Your task to perform on an android device: toggle priority inbox in the gmail app Image 0: 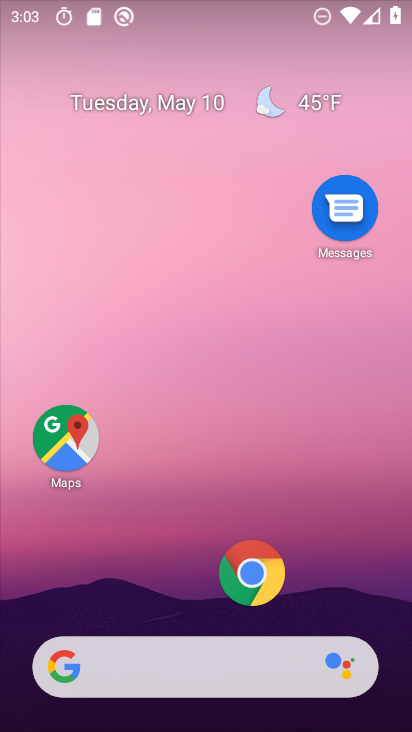
Step 0: drag from (223, 620) to (247, 273)
Your task to perform on an android device: toggle priority inbox in the gmail app Image 1: 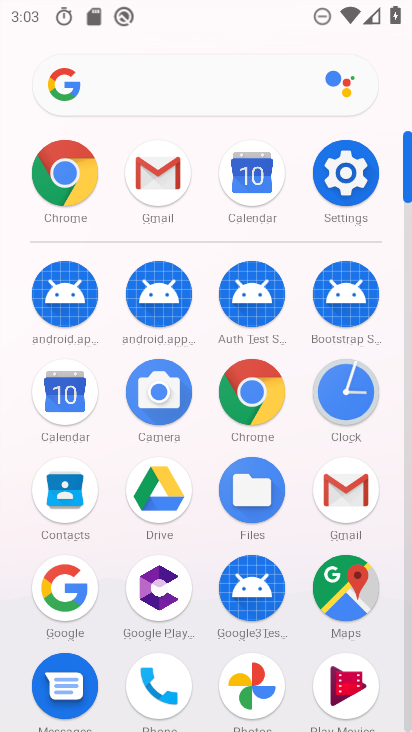
Step 1: drag from (197, 643) to (212, 314)
Your task to perform on an android device: toggle priority inbox in the gmail app Image 2: 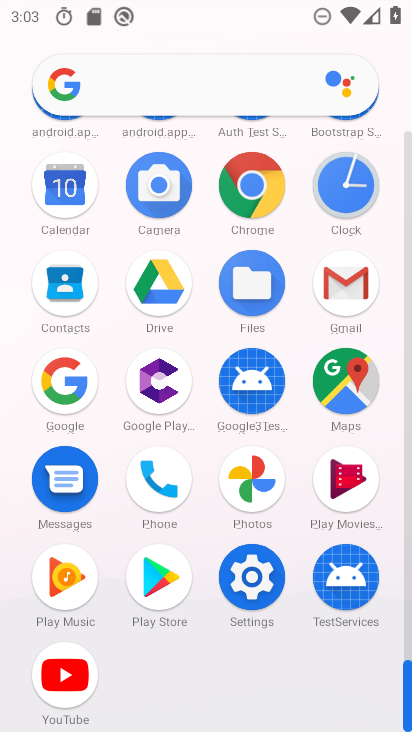
Step 2: click (356, 269)
Your task to perform on an android device: toggle priority inbox in the gmail app Image 3: 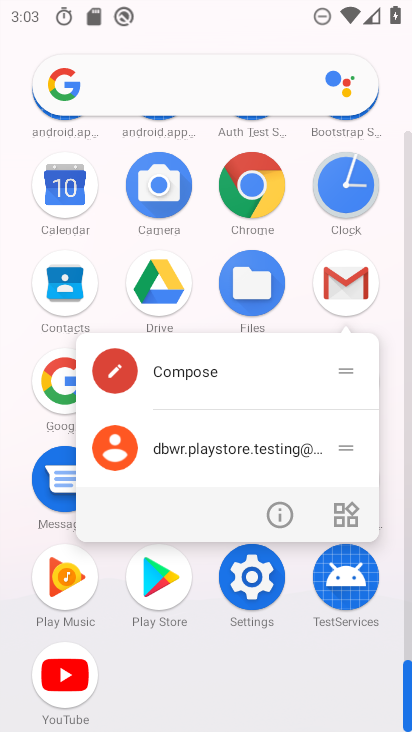
Step 3: click (267, 516)
Your task to perform on an android device: toggle priority inbox in the gmail app Image 4: 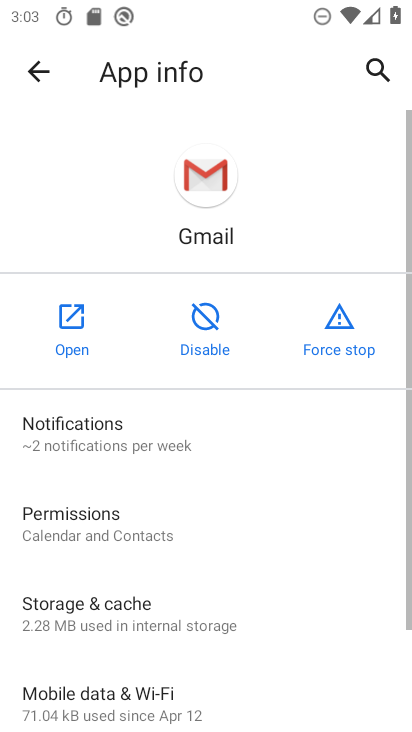
Step 4: click (81, 335)
Your task to perform on an android device: toggle priority inbox in the gmail app Image 5: 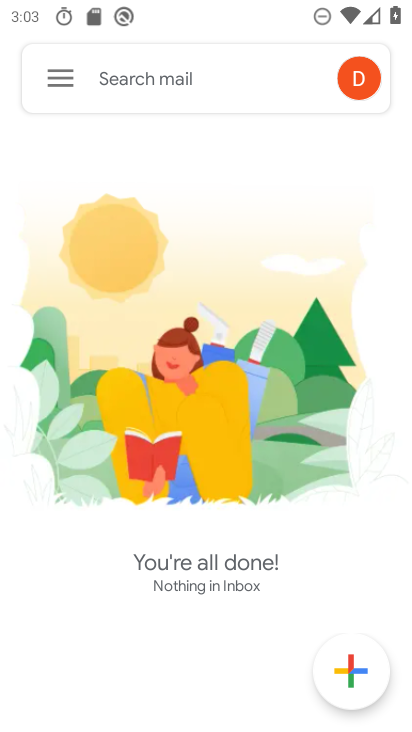
Step 5: click (57, 92)
Your task to perform on an android device: toggle priority inbox in the gmail app Image 6: 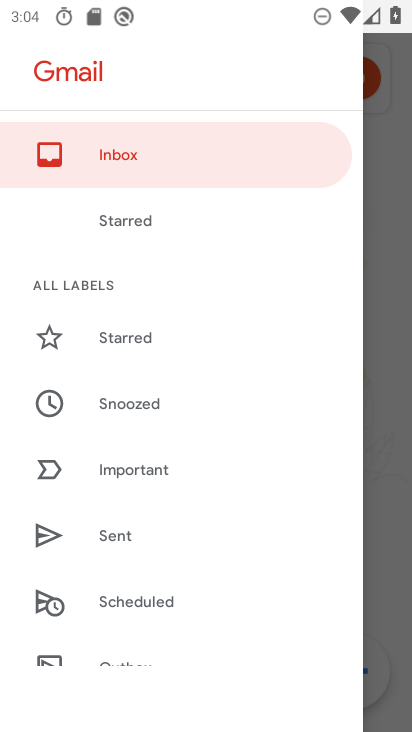
Step 6: drag from (179, 643) to (212, 182)
Your task to perform on an android device: toggle priority inbox in the gmail app Image 7: 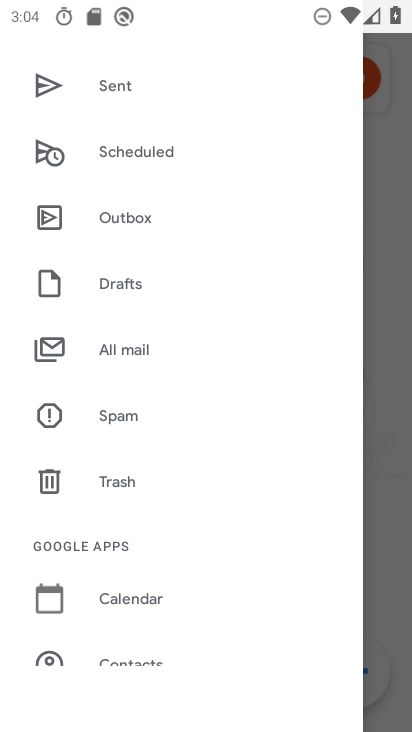
Step 7: drag from (155, 557) to (148, 288)
Your task to perform on an android device: toggle priority inbox in the gmail app Image 8: 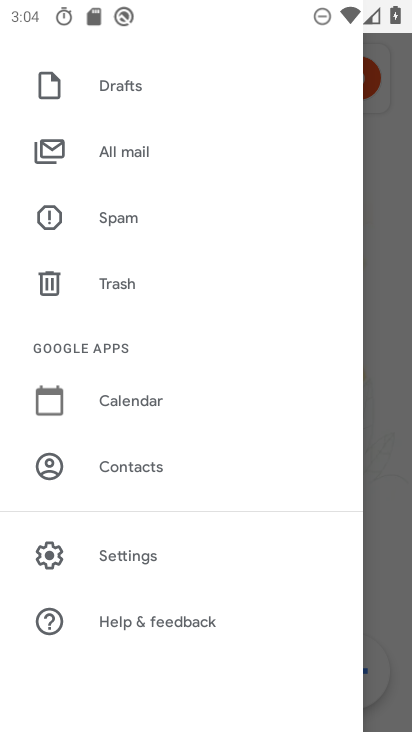
Step 8: click (183, 569)
Your task to perform on an android device: toggle priority inbox in the gmail app Image 9: 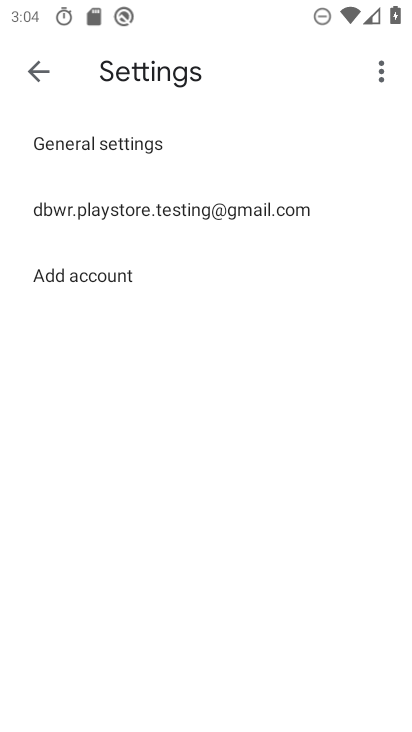
Step 9: click (141, 209)
Your task to perform on an android device: toggle priority inbox in the gmail app Image 10: 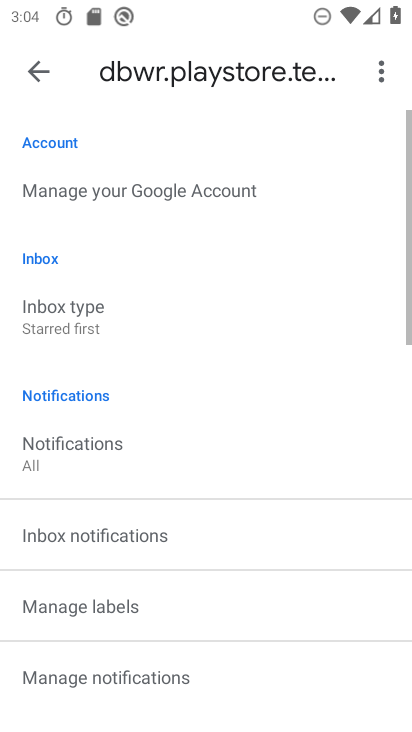
Step 10: click (101, 330)
Your task to perform on an android device: toggle priority inbox in the gmail app Image 11: 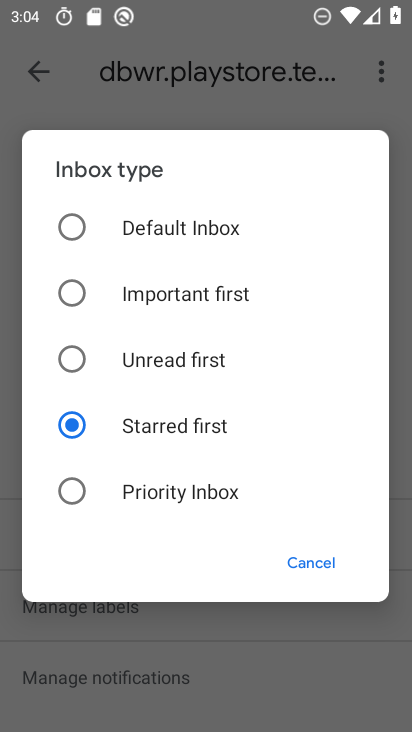
Step 11: click (114, 497)
Your task to perform on an android device: toggle priority inbox in the gmail app Image 12: 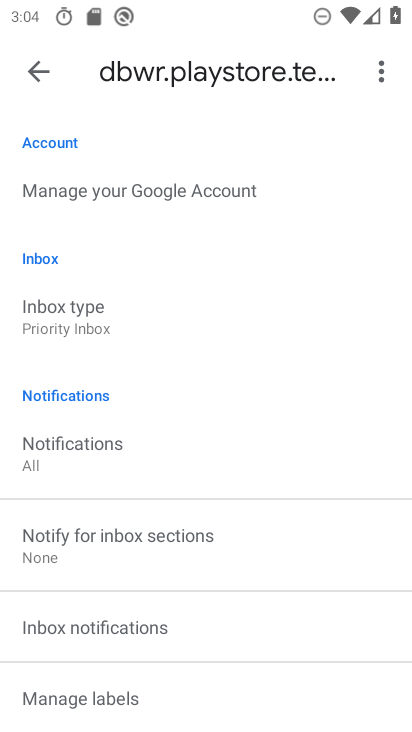
Step 12: task complete